Your task to perform on an android device: toggle javascript in the chrome app Image 0: 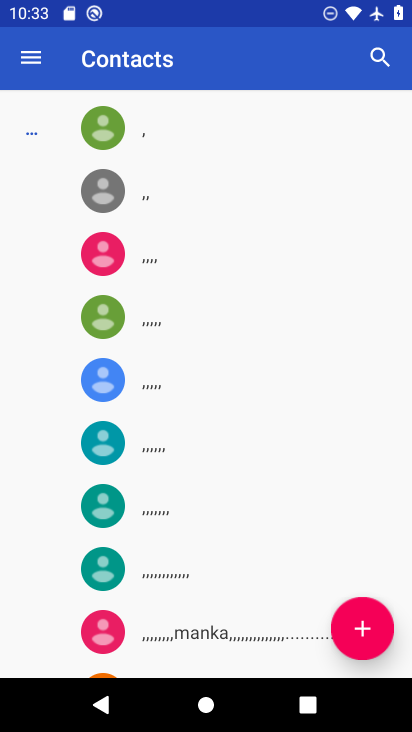
Step 0: press home button
Your task to perform on an android device: toggle javascript in the chrome app Image 1: 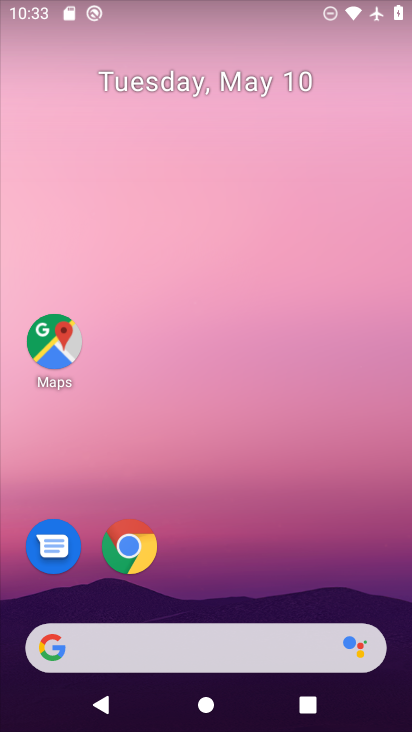
Step 1: click (308, 511)
Your task to perform on an android device: toggle javascript in the chrome app Image 2: 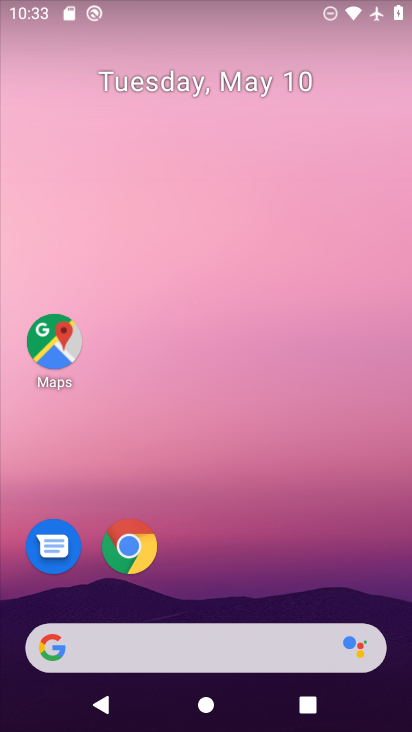
Step 2: click (140, 553)
Your task to perform on an android device: toggle javascript in the chrome app Image 3: 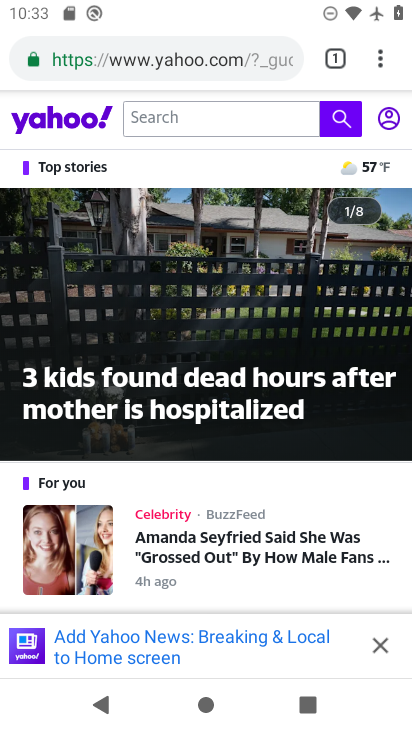
Step 3: click (385, 51)
Your task to perform on an android device: toggle javascript in the chrome app Image 4: 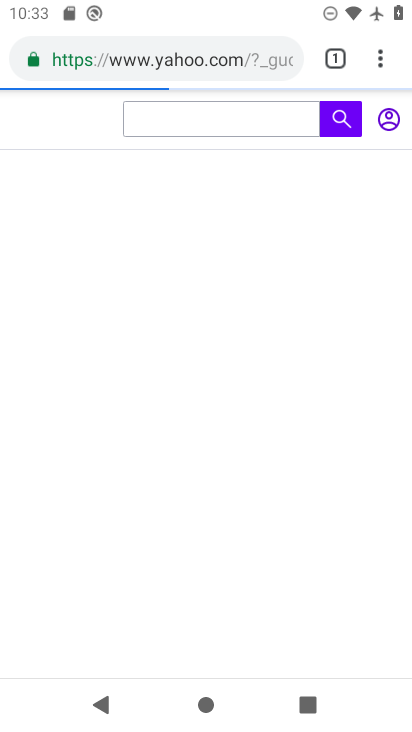
Step 4: drag from (382, 59) to (253, 565)
Your task to perform on an android device: toggle javascript in the chrome app Image 5: 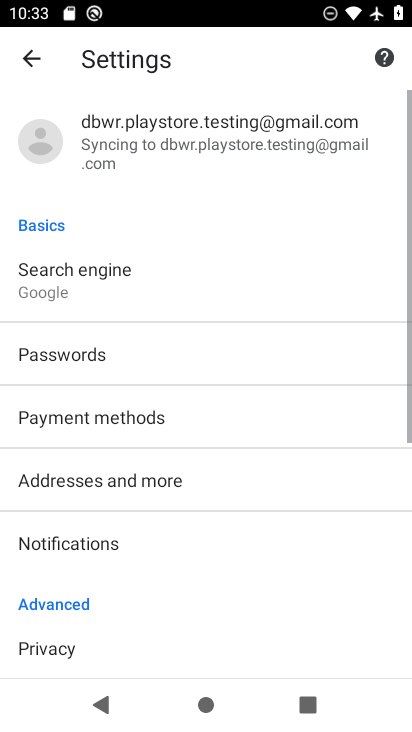
Step 5: drag from (254, 564) to (303, 124)
Your task to perform on an android device: toggle javascript in the chrome app Image 6: 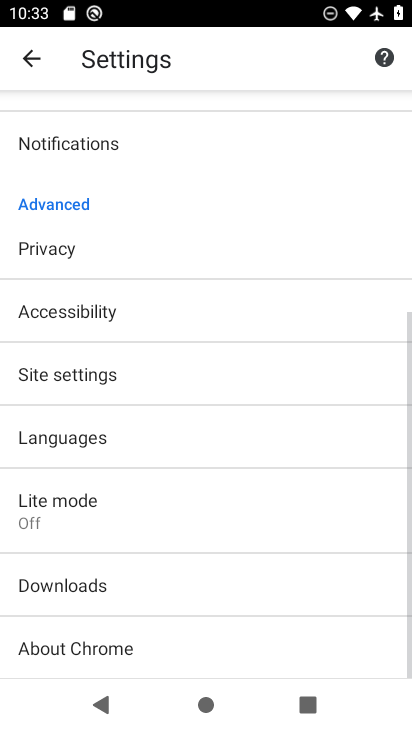
Step 6: click (143, 377)
Your task to perform on an android device: toggle javascript in the chrome app Image 7: 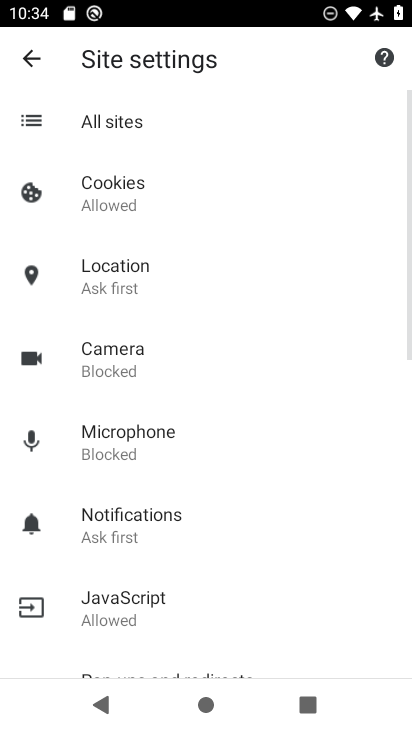
Step 7: drag from (257, 586) to (293, 286)
Your task to perform on an android device: toggle javascript in the chrome app Image 8: 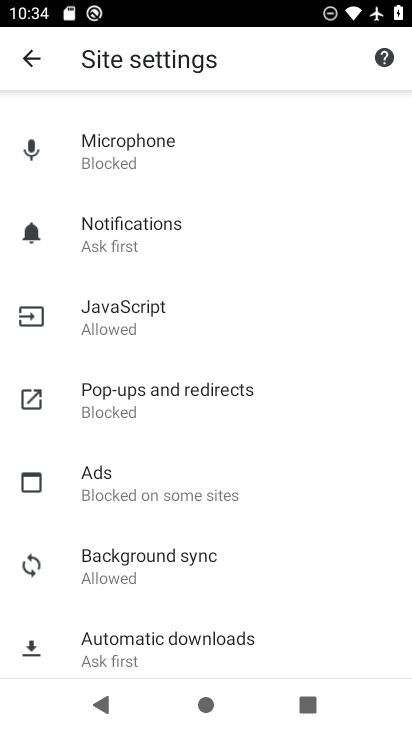
Step 8: click (148, 312)
Your task to perform on an android device: toggle javascript in the chrome app Image 9: 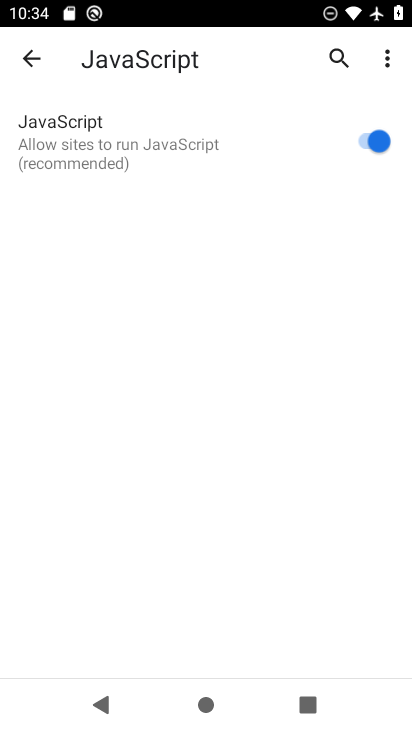
Step 9: click (366, 136)
Your task to perform on an android device: toggle javascript in the chrome app Image 10: 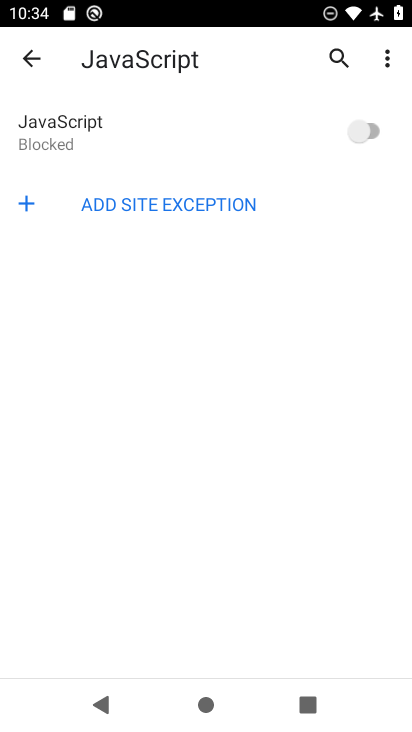
Step 10: task complete